Your task to perform on an android device: Search for "energizer triple a" on target, select the first entry, and add it to the cart. Image 0: 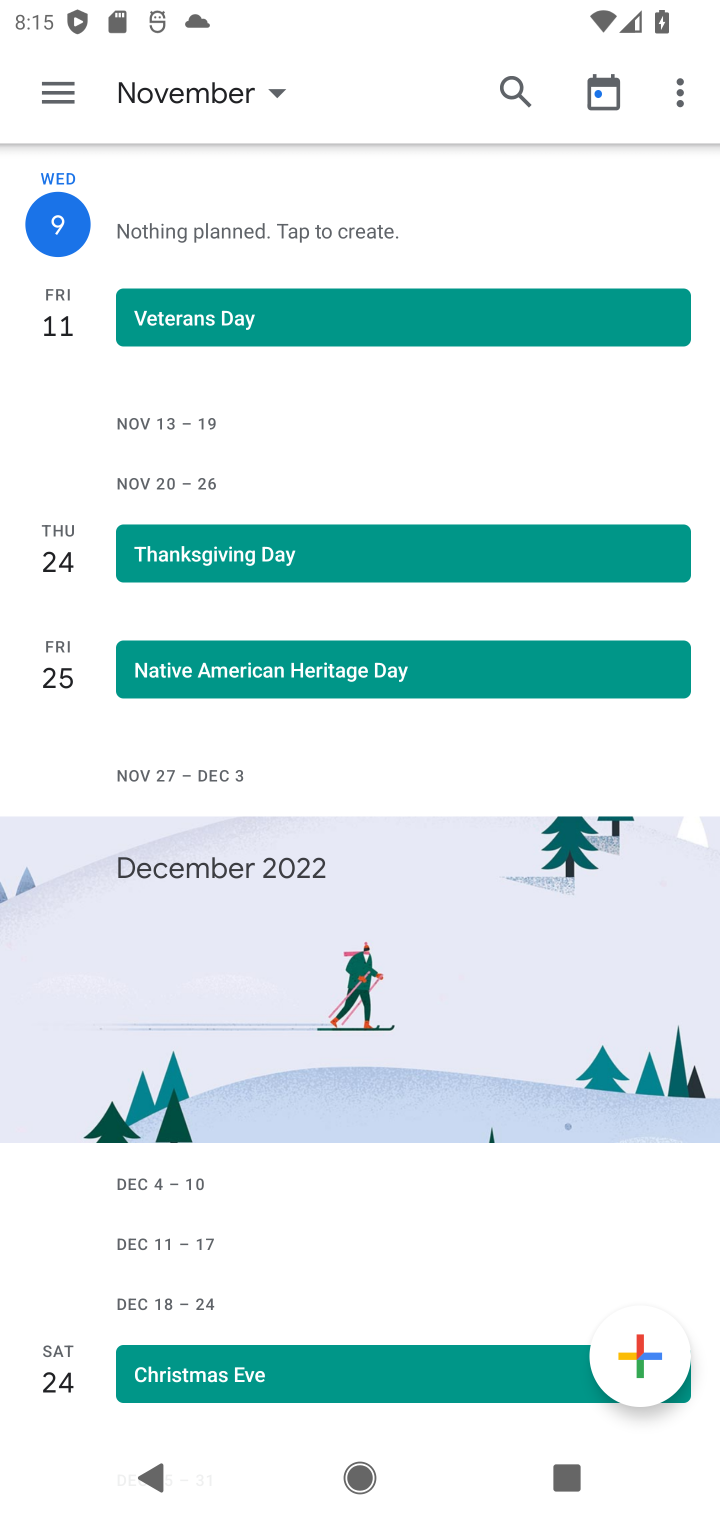
Step 0: click (512, 98)
Your task to perform on an android device: Search for "energizer triple a" on target, select the first entry, and add it to the cart. Image 1: 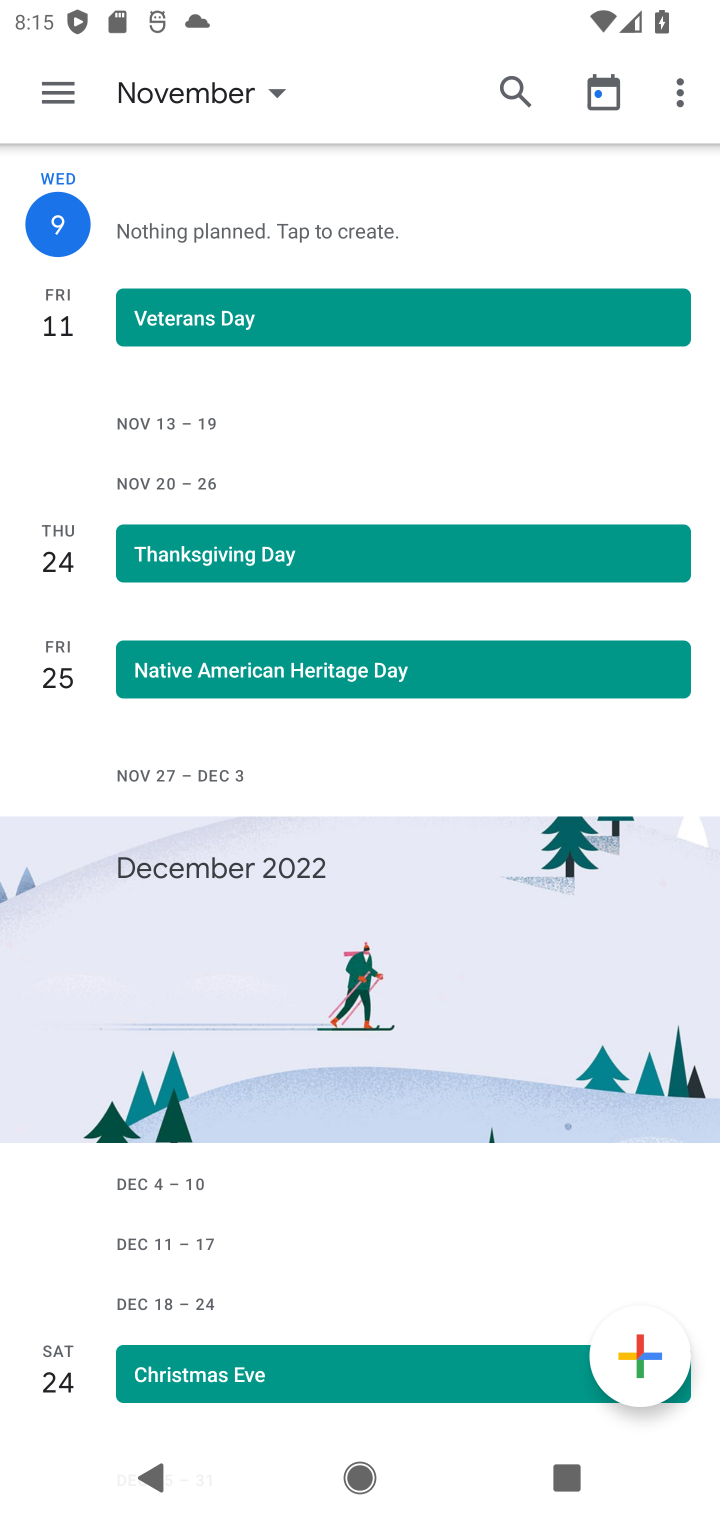
Step 1: press back button
Your task to perform on an android device: Search for "energizer triple a" on target, select the first entry, and add it to the cart. Image 2: 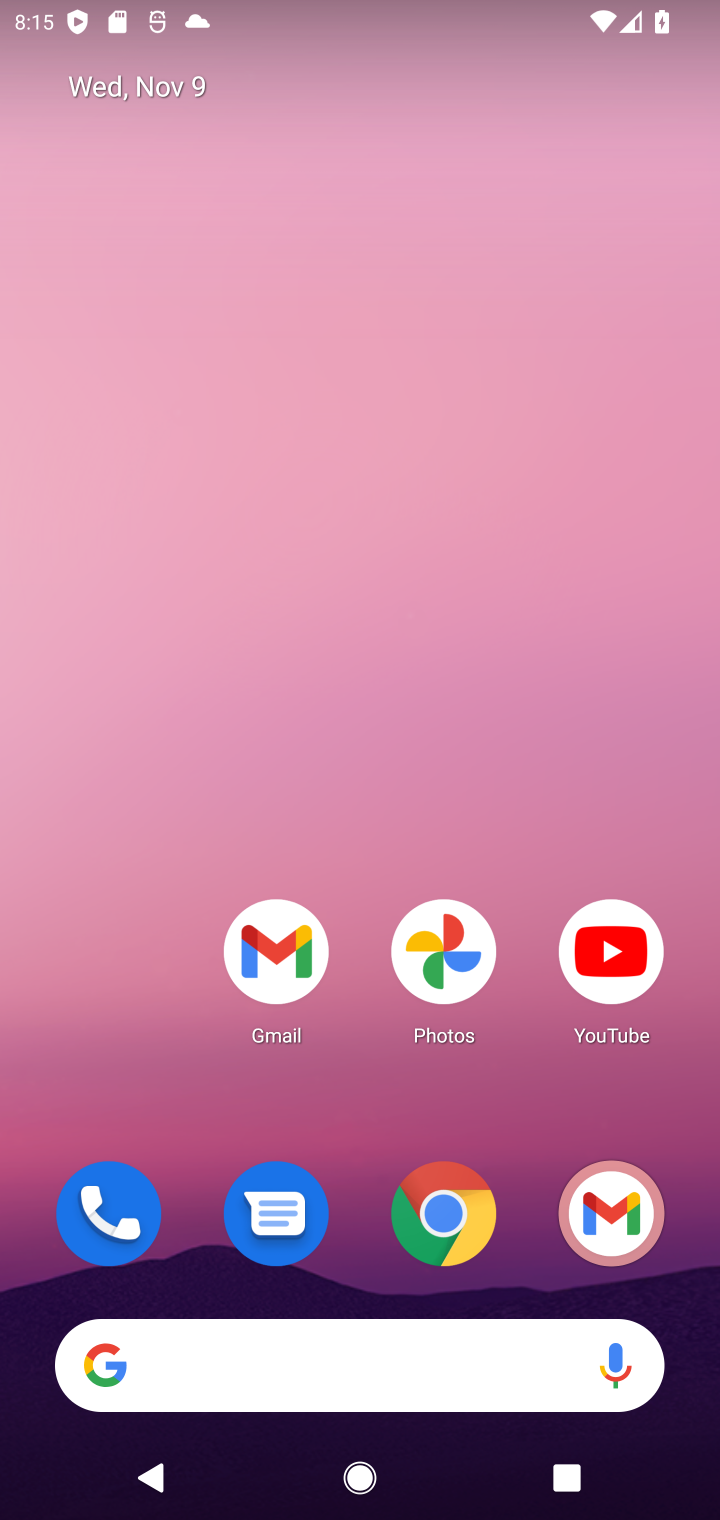
Step 2: click (461, 1223)
Your task to perform on an android device: Search for "energizer triple a" on target, select the first entry, and add it to the cart. Image 3: 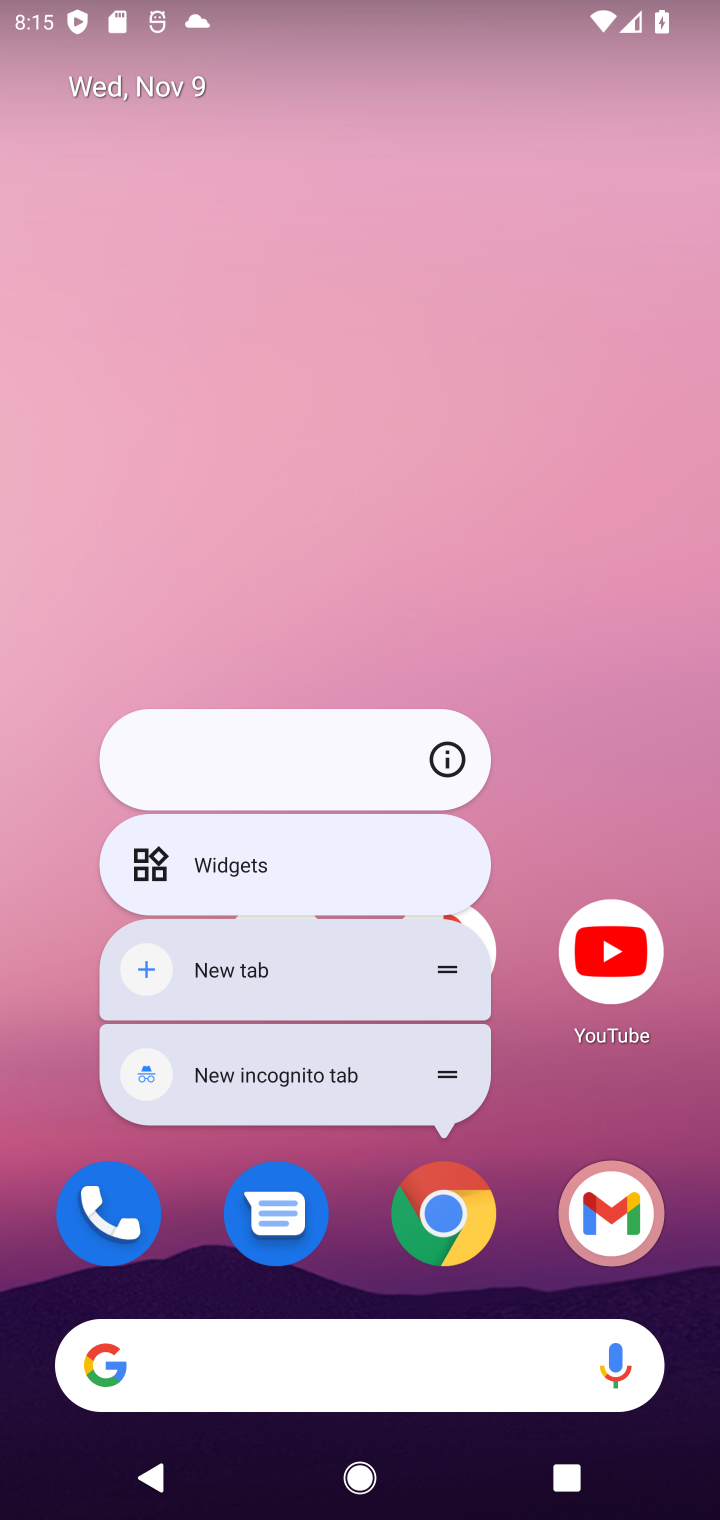
Step 3: click (438, 1224)
Your task to perform on an android device: Search for "energizer triple a" on target, select the first entry, and add it to the cart. Image 4: 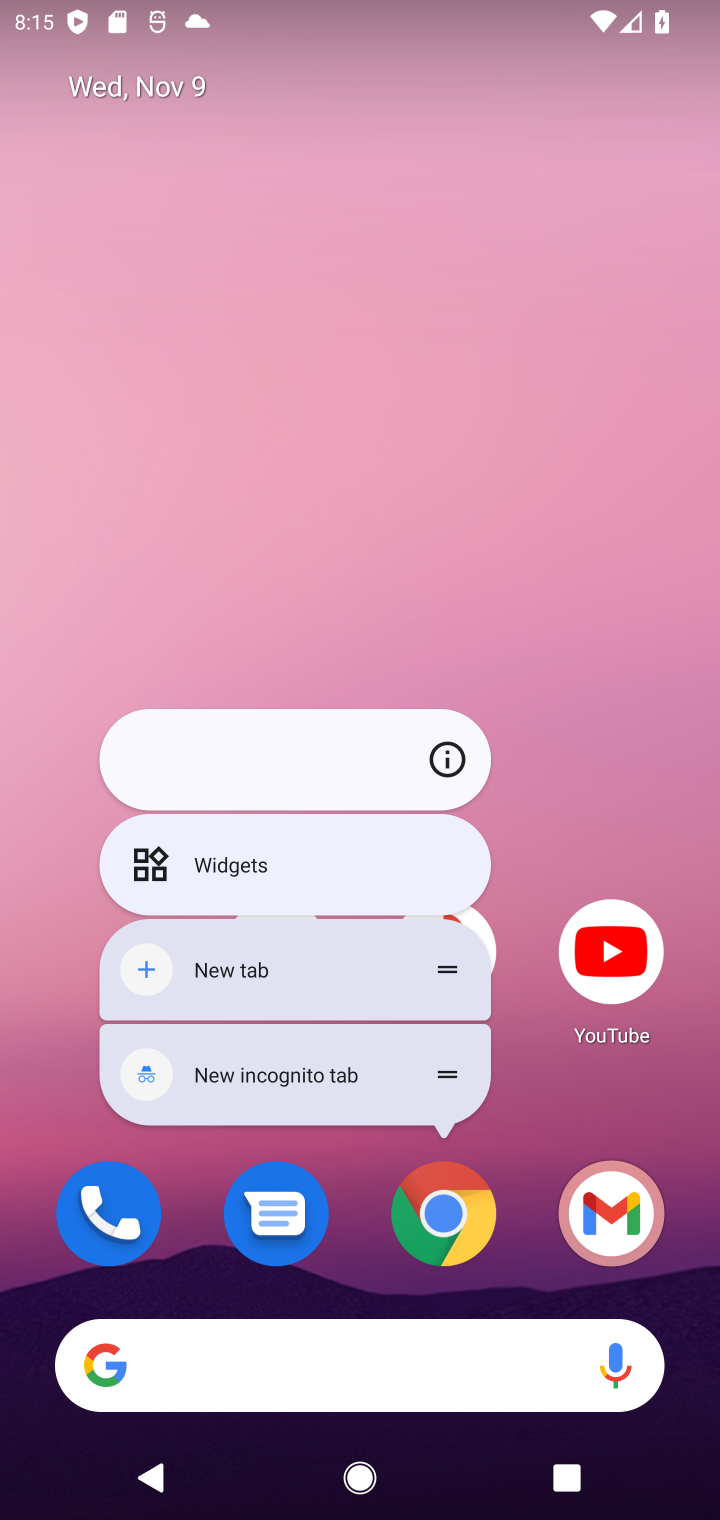
Step 4: click (468, 1204)
Your task to perform on an android device: Search for "energizer triple a" on target, select the first entry, and add it to the cart. Image 5: 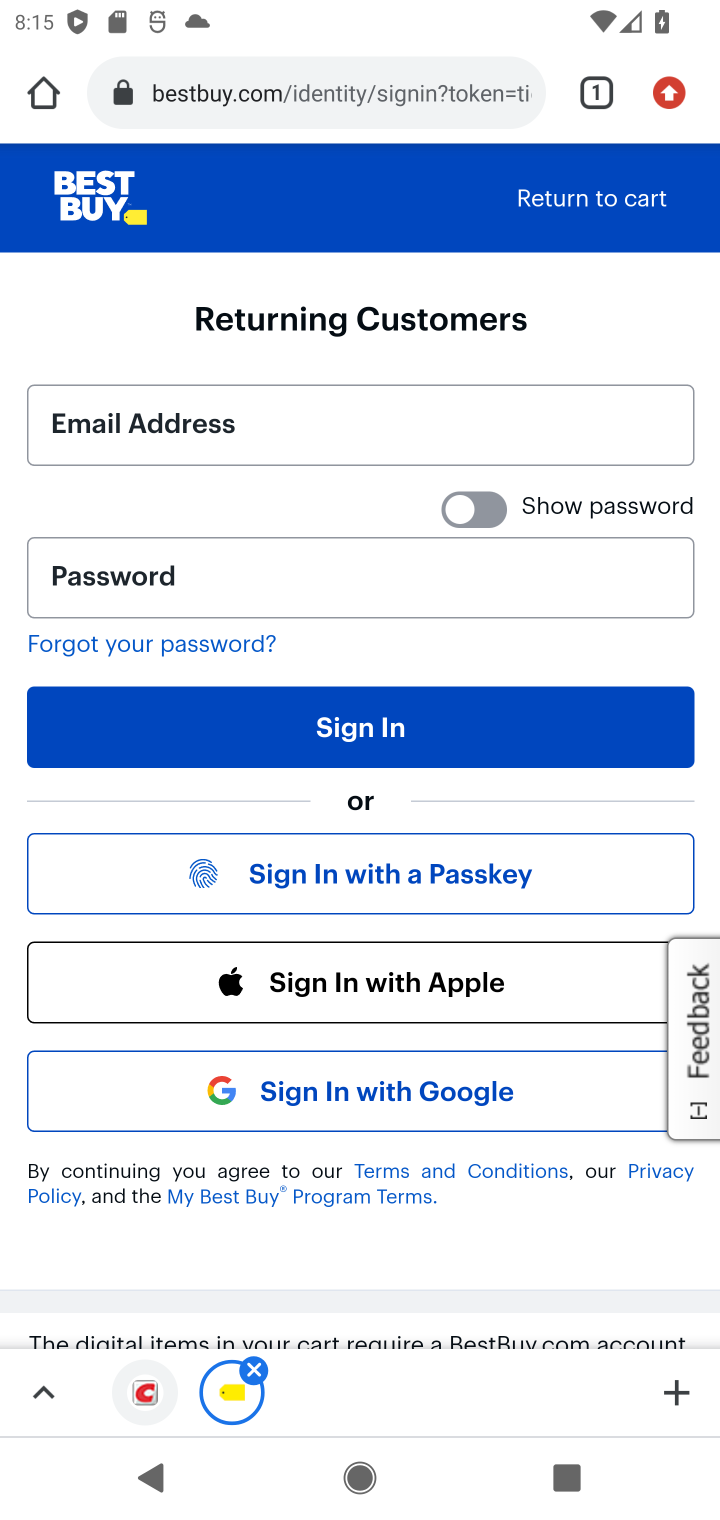
Step 5: click (313, 81)
Your task to perform on an android device: Search for "energizer triple a" on target, select the first entry, and add it to the cart. Image 6: 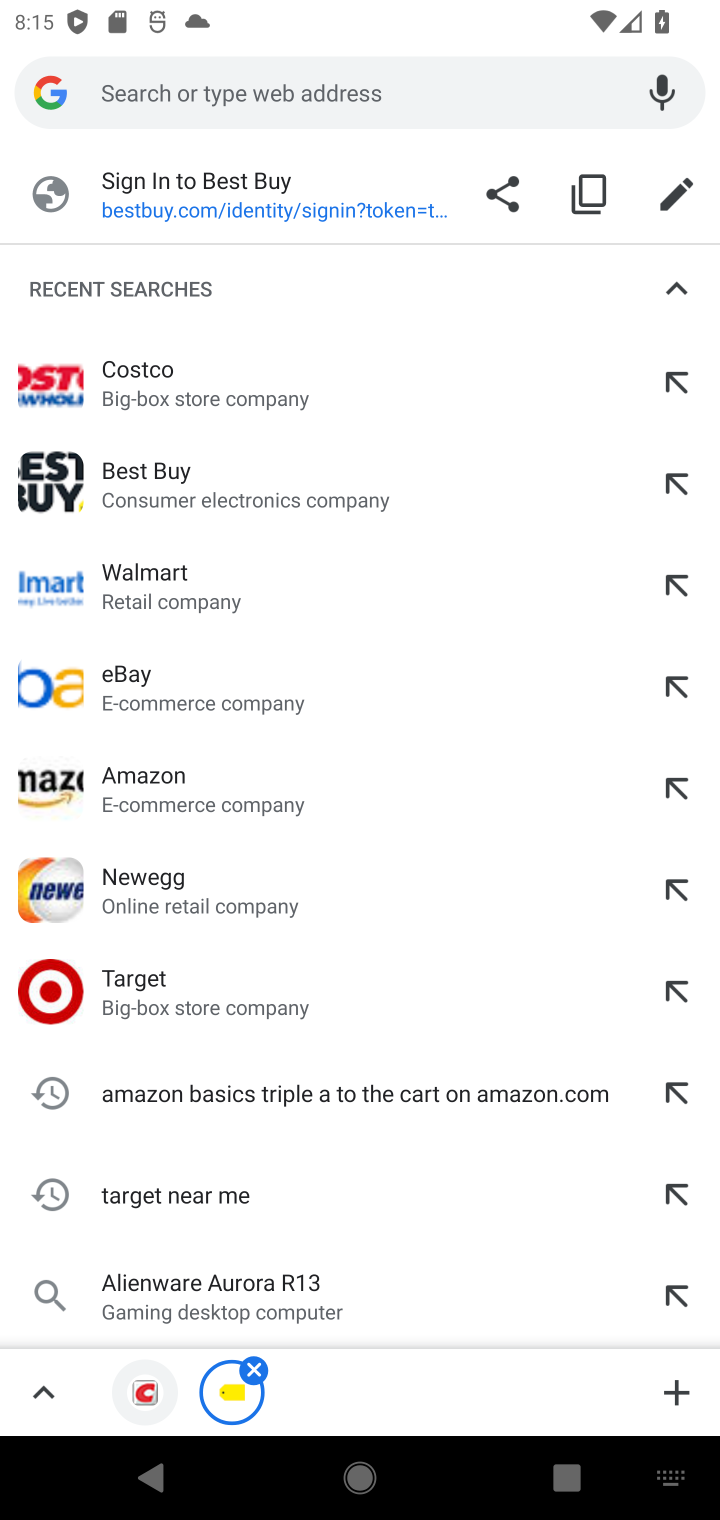
Step 6: click (121, 995)
Your task to perform on an android device: Search for "energizer triple a" on target, select the first entry, and add it to the cart. Image 7: 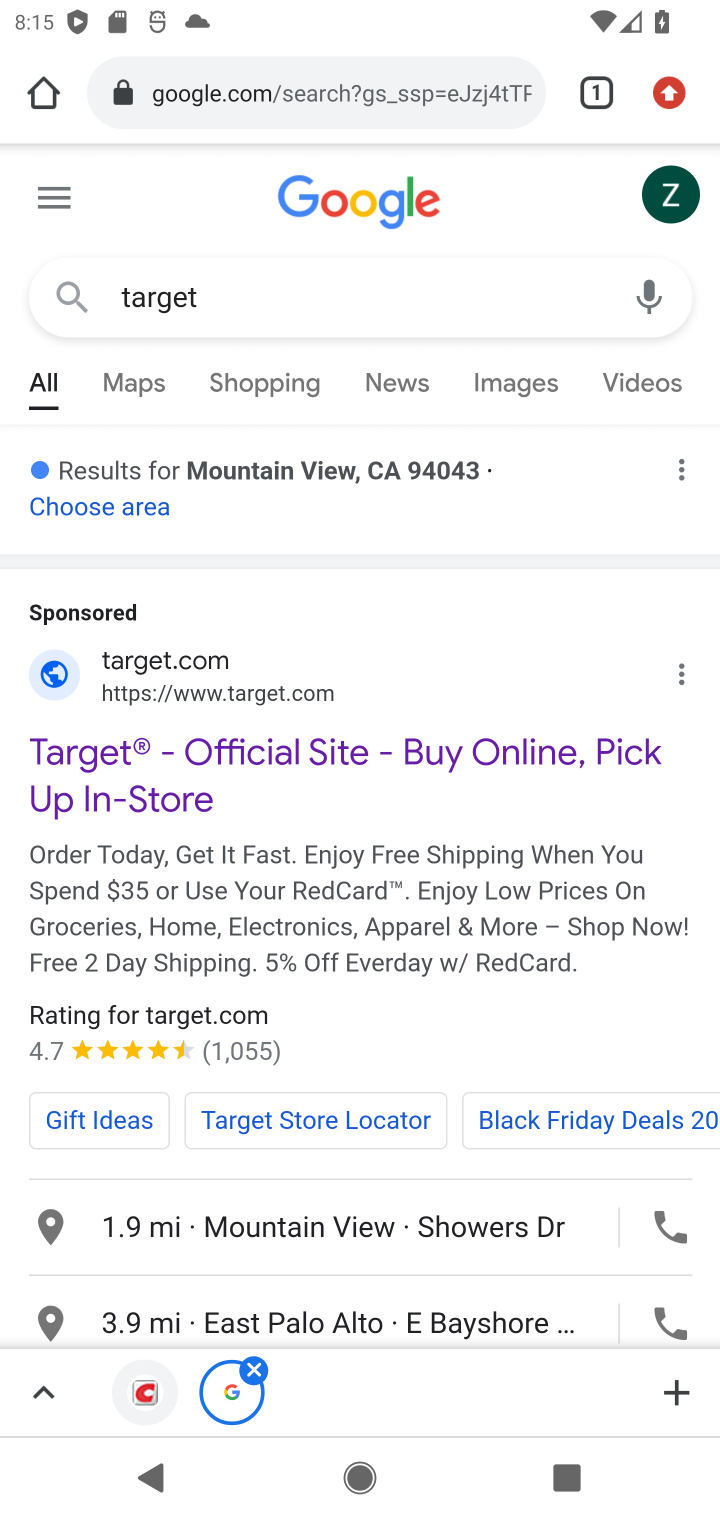
Step 7: drag from (284, 980) to (315, 467)
Your task to perform on an android device: Search for "energizer triple a" on target, select the first entry, and add it to the cart. Image 8: 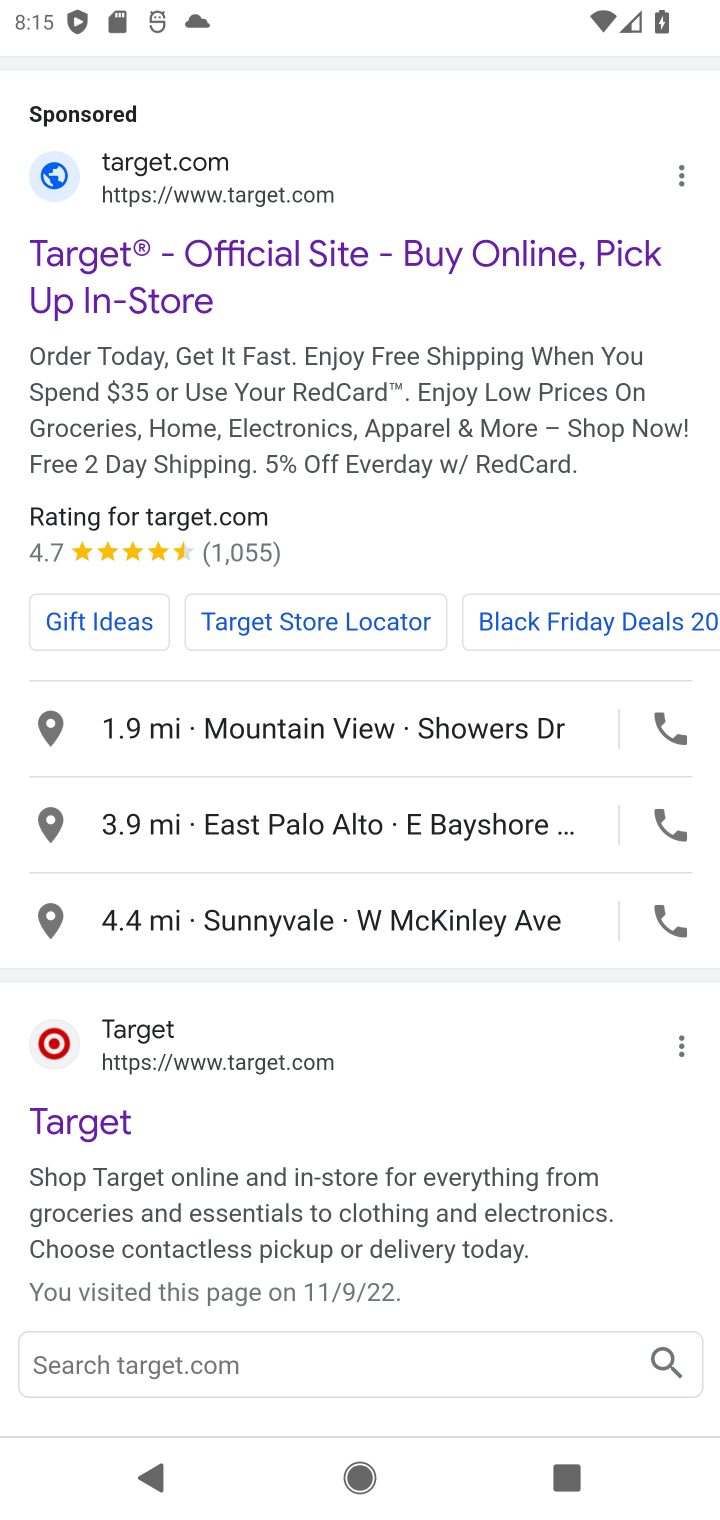
Step 8: click (95, 1108)
Your task to perform on an android device: Search for "energizer triple a" on target, select the first entry, and add it to the cart. Image 9: 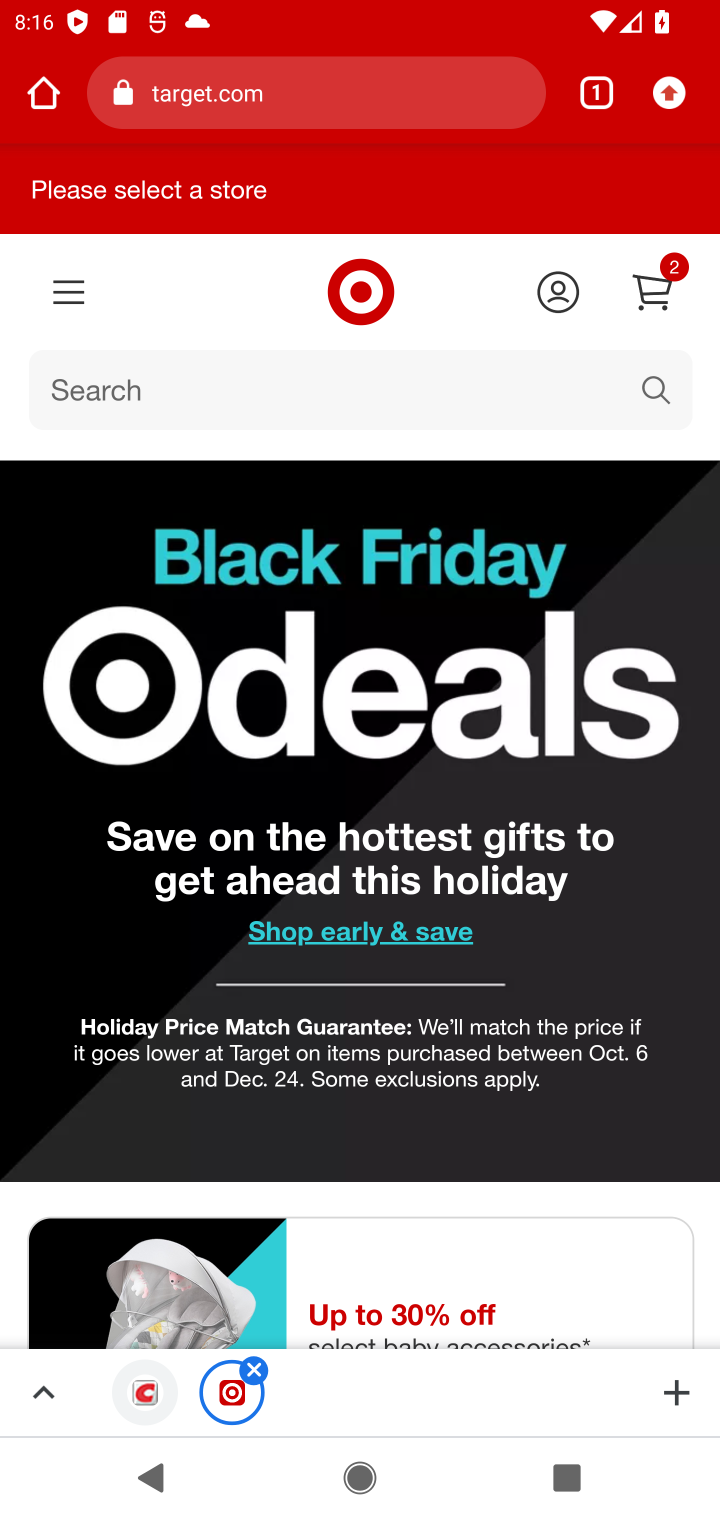
Step 9: click (142, 374)
Your task to perform on an android device: Search for "energizer triple a" on target, select the first entry, and add it to the cart. Image 10: 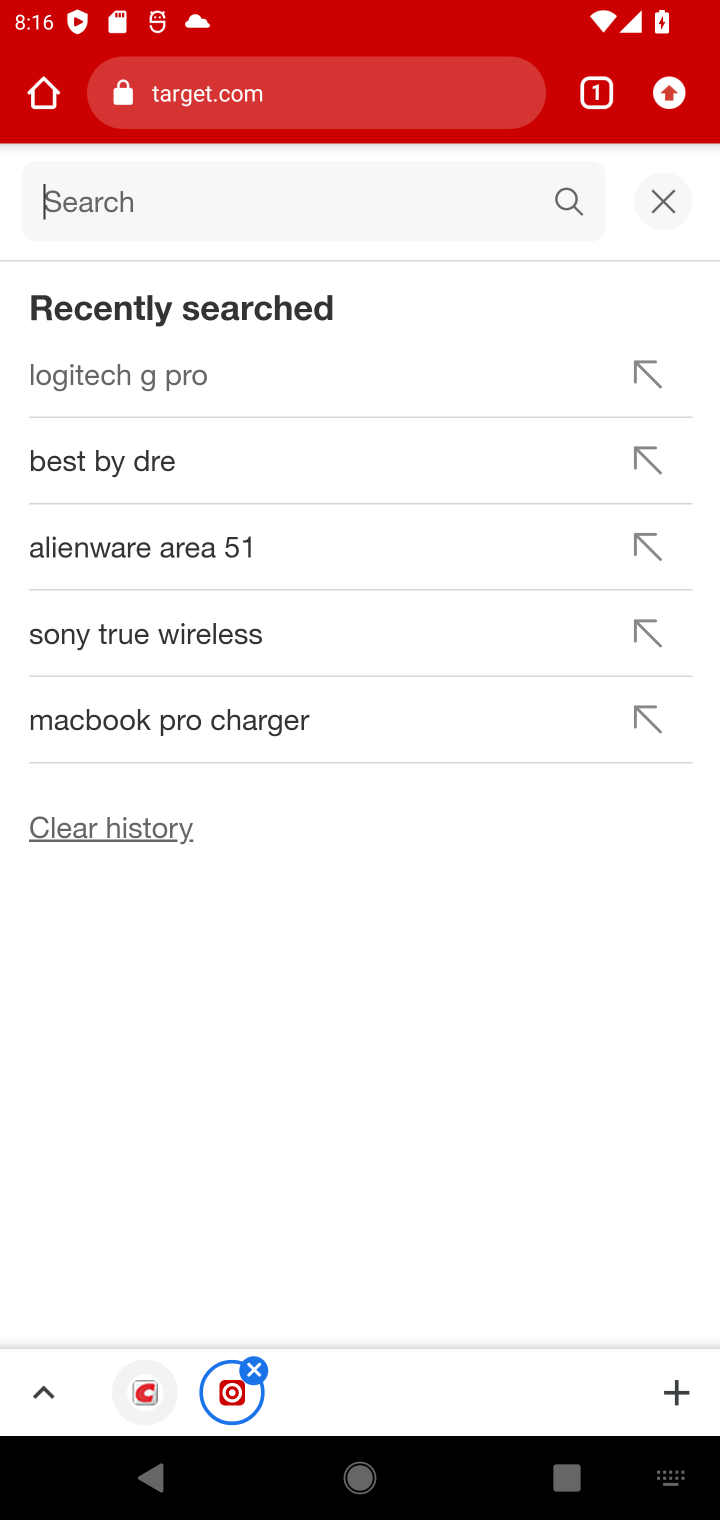
Step 10: type "energizer triple"
Your task to perform on an android device: Search for "energizer triple a" on target, select the first entry, and add it to the cart. Image 11: 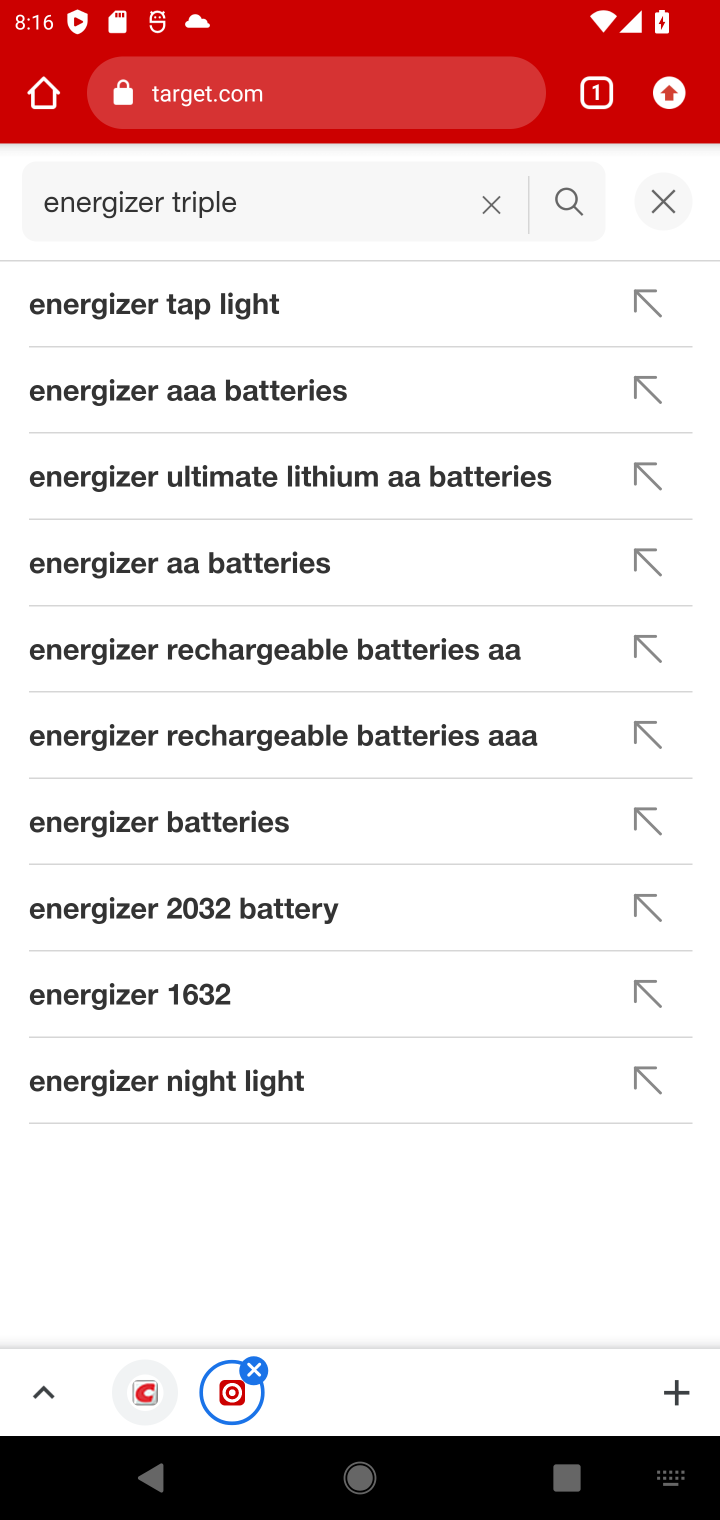
Step 11: click (163, 303)
Your task to perform on an android device: Search for "energizer triple a" on target, select the first entry, and add it to the cart. Image 12: 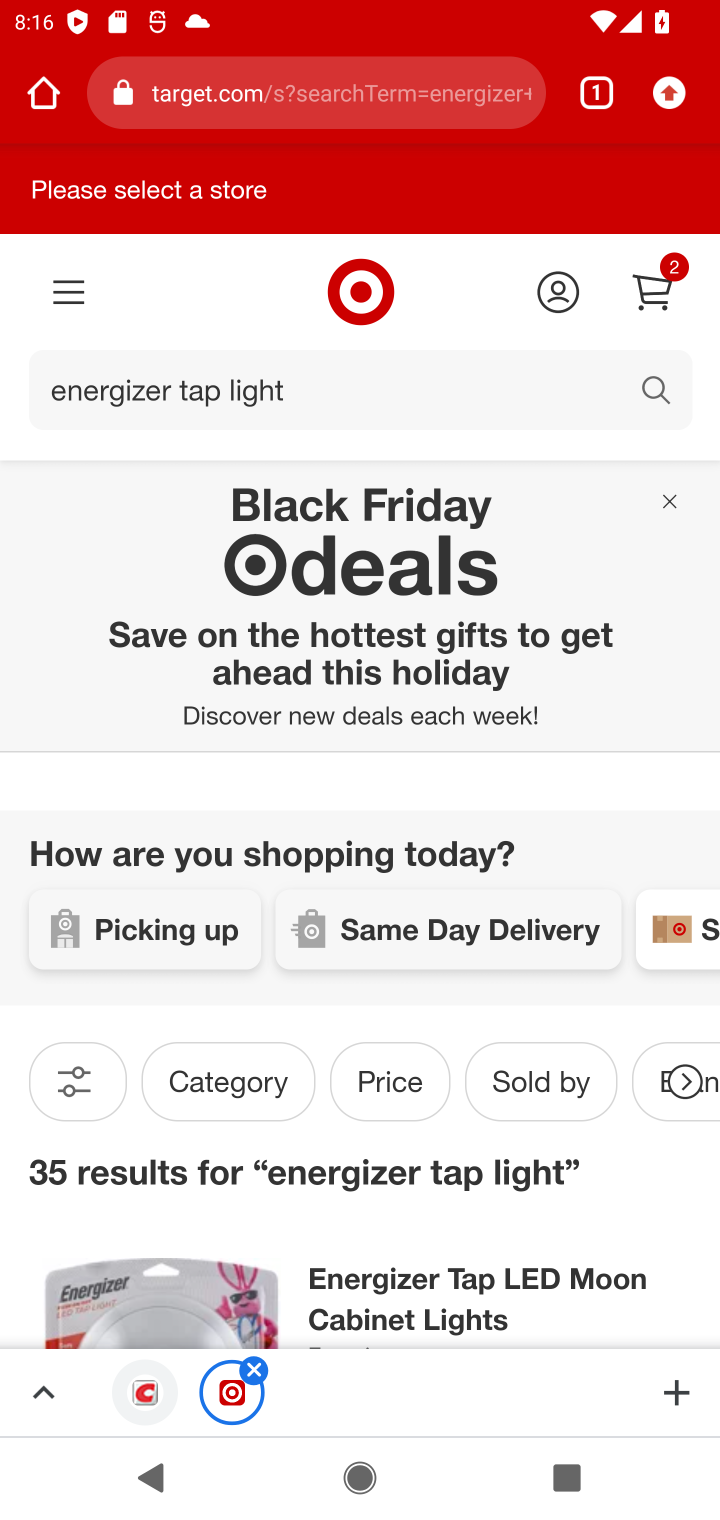
Step 12: drag from (315, 1226) to (379, 478)
Your task to perform on an android device: Search for "energizer triple a" on target, select the first entry, and add it to the cart. Image 13: 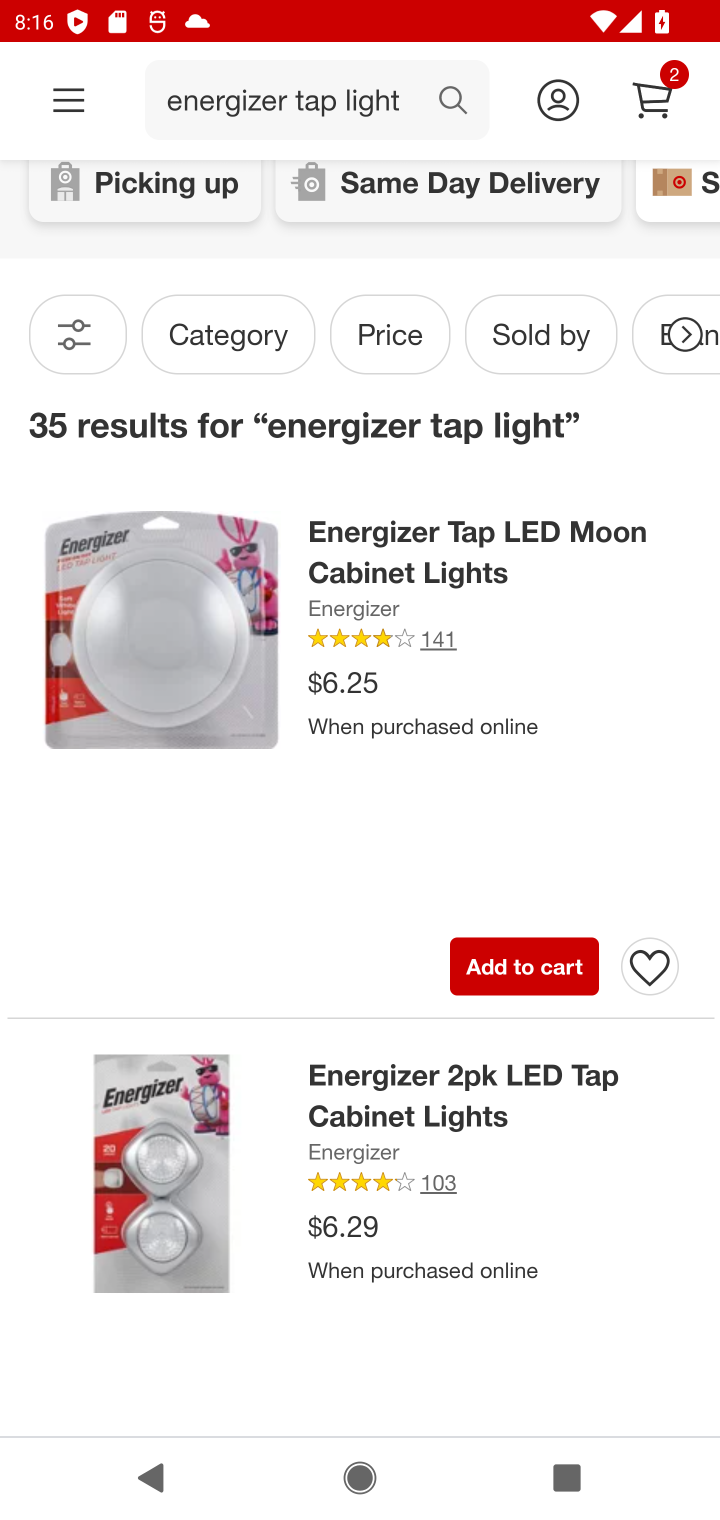
Step 13: click (348, 1107)
Your task to perform on an android device: Search for "energizer triple a" on target, select the first entry, and add it to the cart. Image 14: 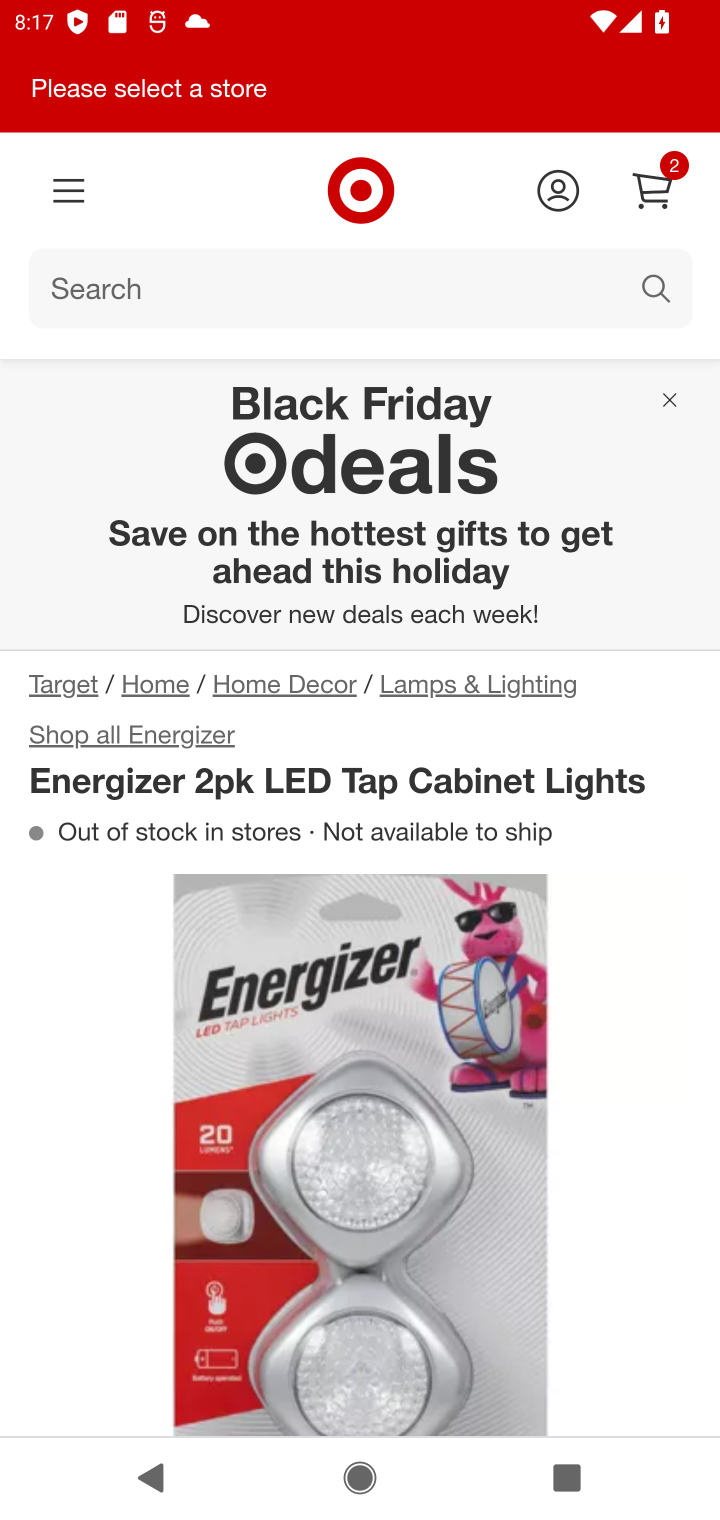
Step 14: drag from (391, 1187) to (321, 651)
Your task to perform on an android device: Search for "energizer triple a" on target, select the first entry, and add it to the cart. Image 15: 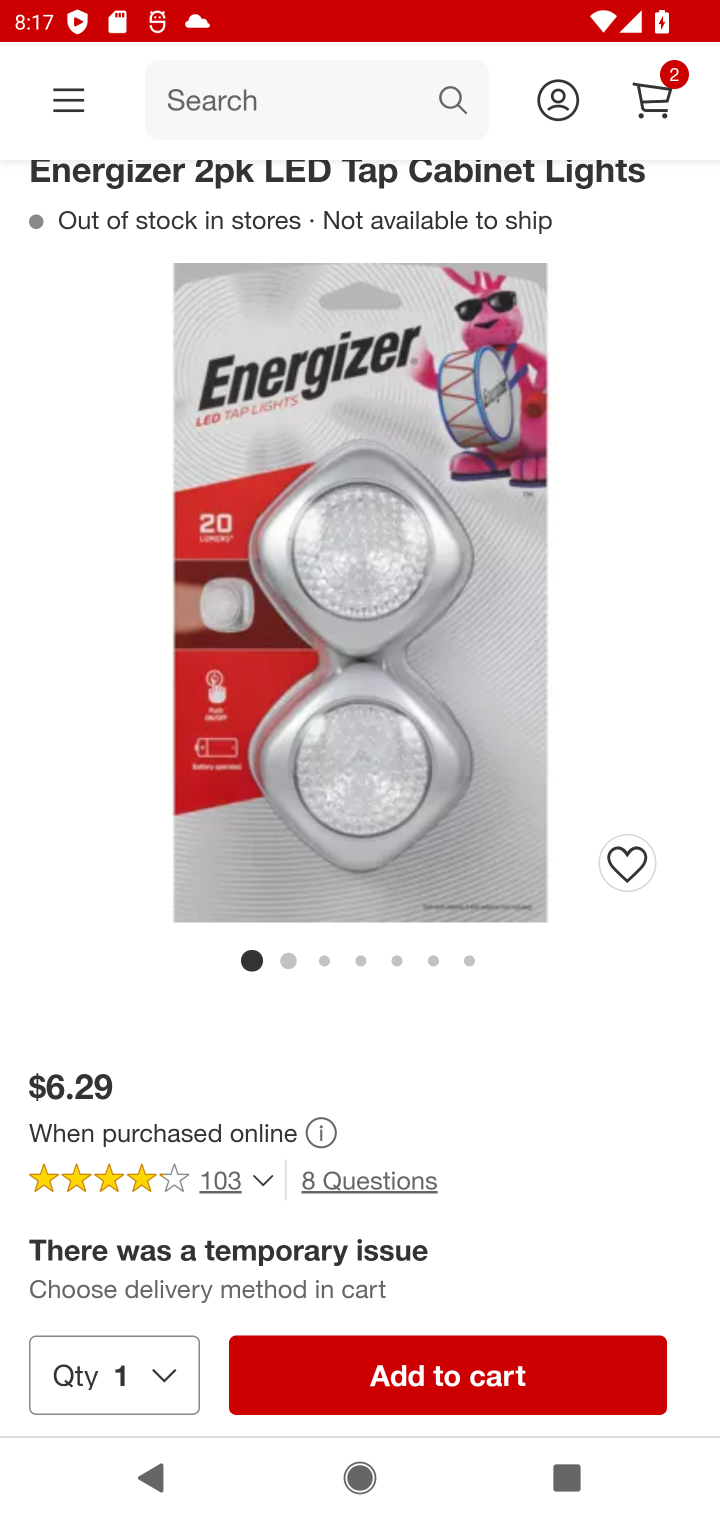
Step 15: click (452, 1383)
Your task to perform on an android device: Search for "energizer triple a" on target, select the first entry, and add it to the cart. Image 16: 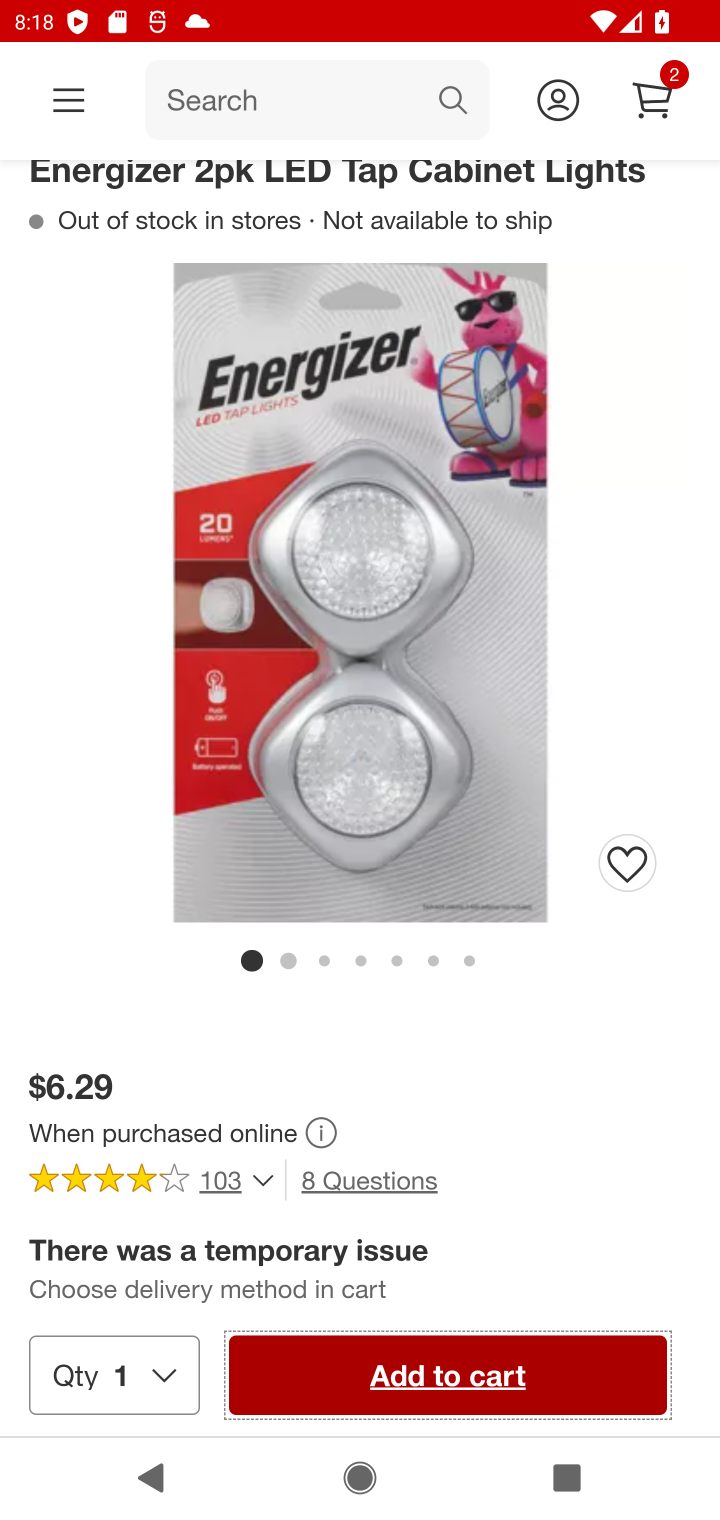
Step 16: task complete